Your task to perform on an android device: Search for vegetarian restaurants on Maps Image 0: 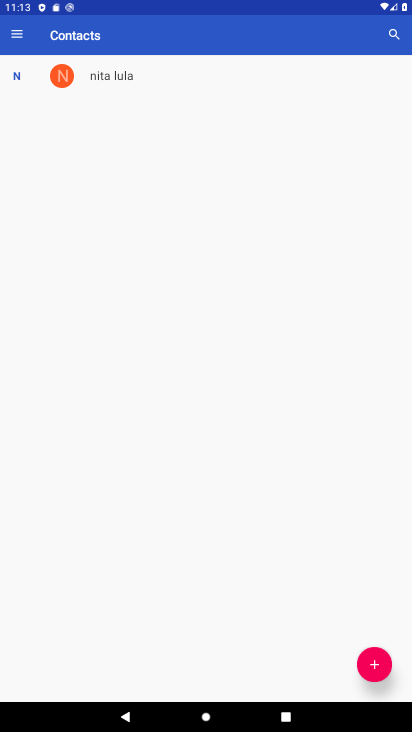
Step 0: press home button
Your task to perform on an android device: Search for vegetarian restaurants on Maps Image 1: 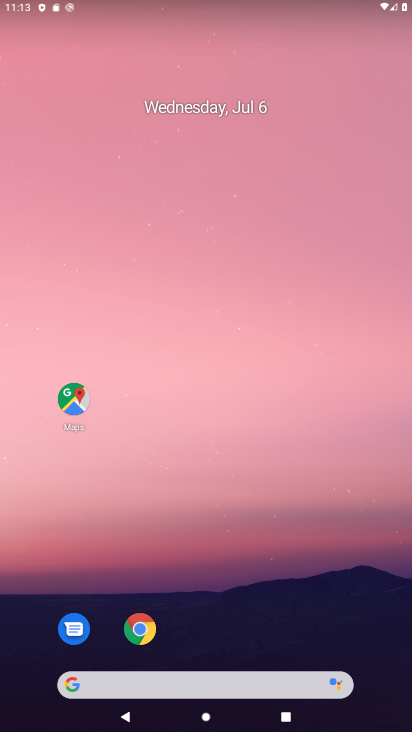
Step 1: drag from (266, 621) to (228, 107)
Your task to perform on an android device: Search for vegetarian restaurants on Maps Image 2: 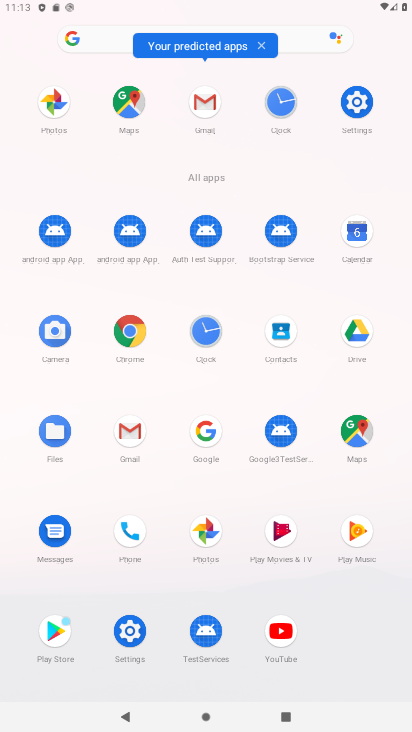
Step 2: click (125, 96)
Your task to perform on an android device: Search for vegetarian restaurants on Maps Image 3: 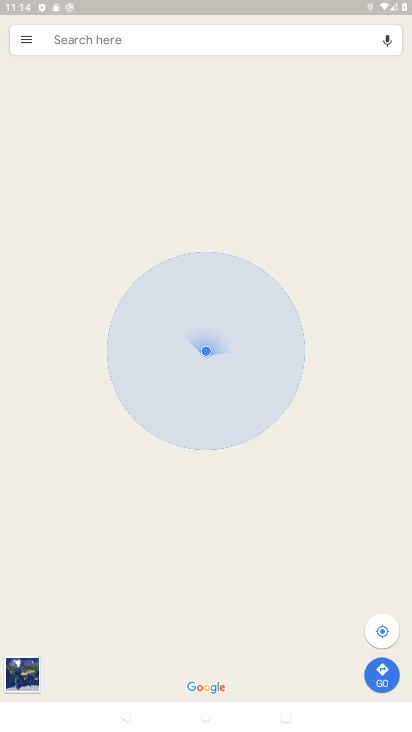
Step 3: click (257, 39)
Your task to perform on an android device: Search for vegetarian restaurants on Maps Image 4: 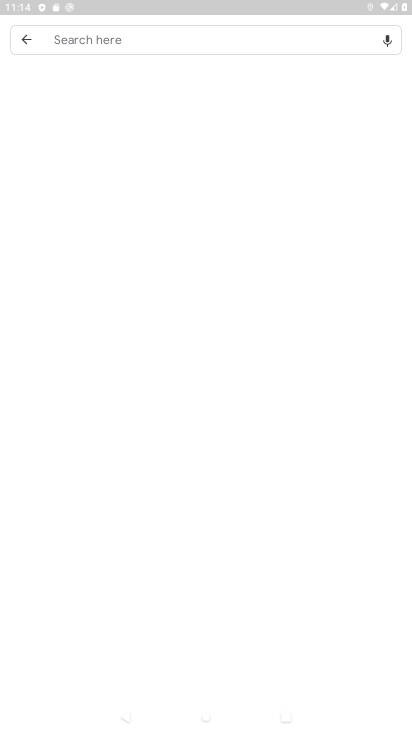
Step 4: click (257, 39)
Your task to perform on an android device: Search for vegetarian restaurants on Maps Image 5: 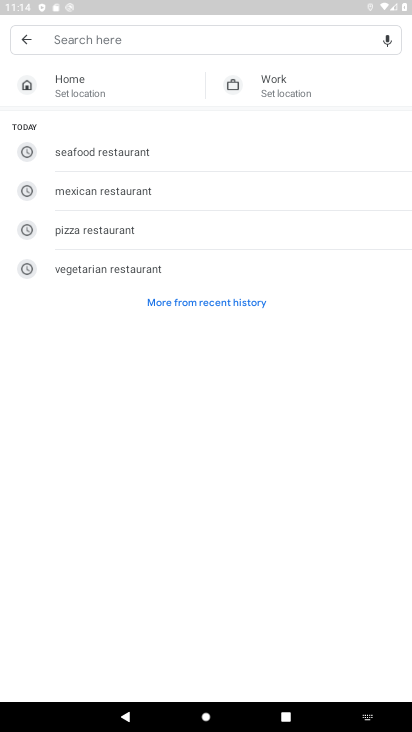
Step 5: click (132, 270)
Your task to perform on an android device: Search for vegetarian restaurants on Maps Image 6: 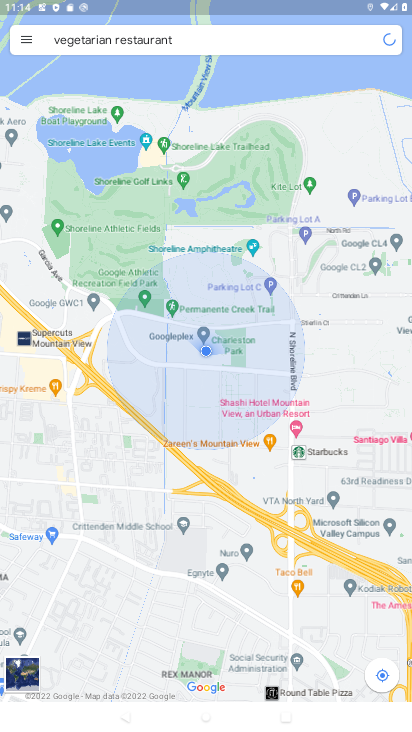
Step 6: task complete